Your task to perform on an android device: change timer sound Image 0: 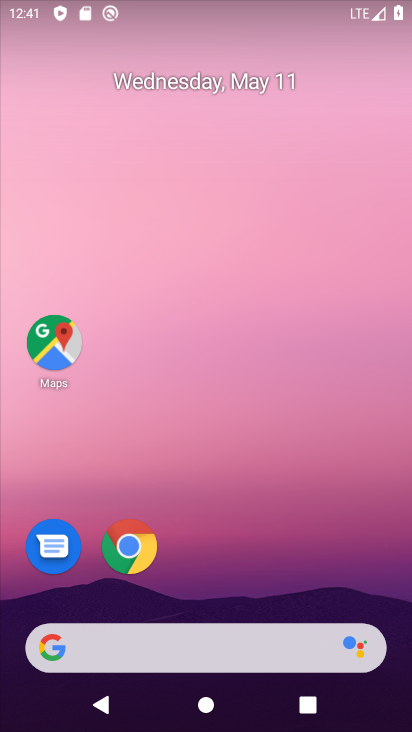
Step 0: press home button
Your task to perform on an android device: change timer sound Image 1: 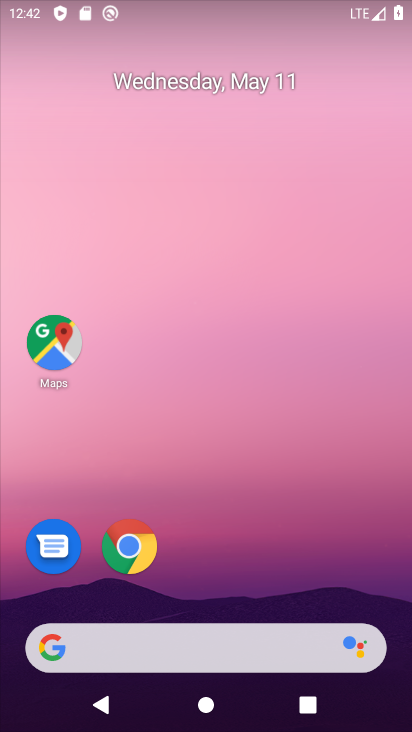
Step 1: drag from (288, 691) to (236, 312)
Your task to perform on an android device: change timer sound Image 2: 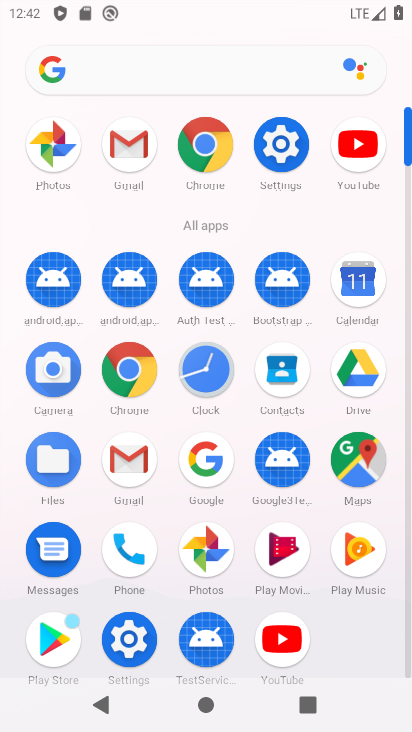
Step 2: click (213, 368)
Your task to perform on an android device: change timer sound Image 3: 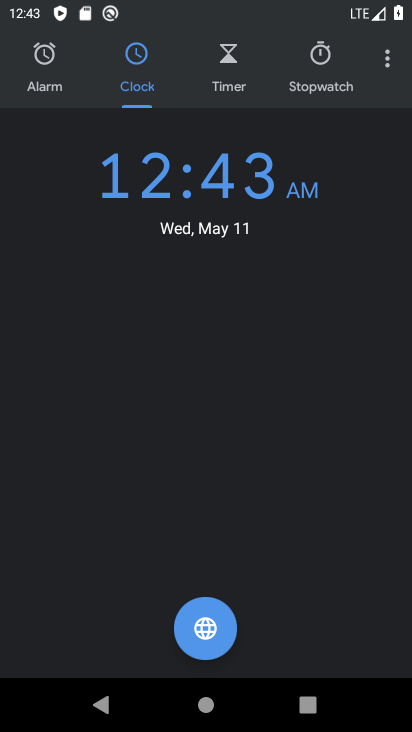
Step 3: click (387, 61)
Your task to perform on an android device: change timer sound Image 4: 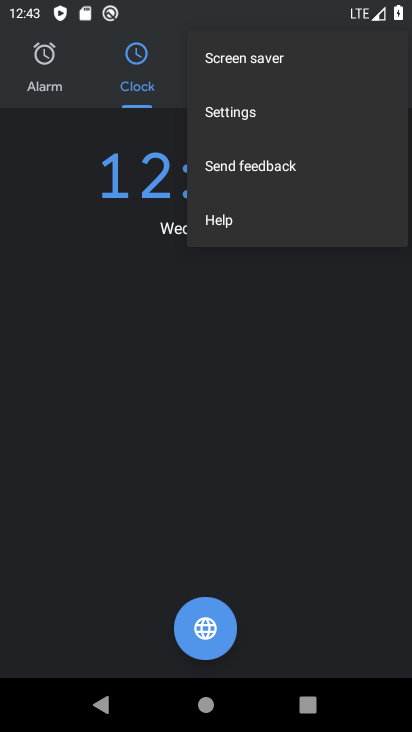
Step 4: click (261, 114)
Your task to perform on an android device: change timer sound Image 5: 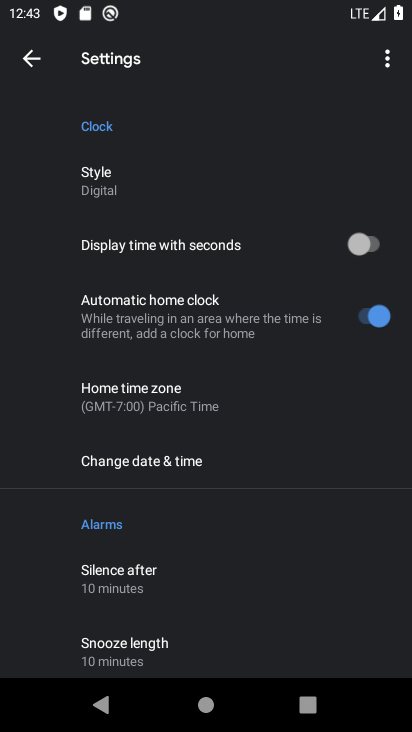
Step 5: drag from (193, 610) to (180, 261)
Your task to perform on an android device: change timer sound Image 6: 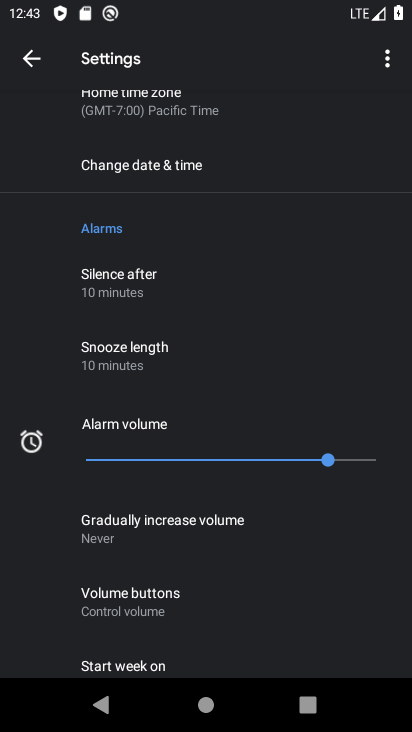
Step 6: drag from (176, 586) to (191, 393)
Your task to perform on an android device: change timer sound Image 7: 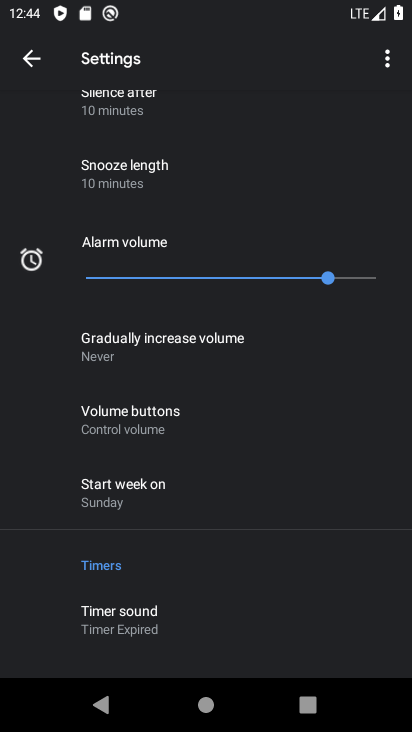
Step 7: click (138, 606)
Your task to perform on an android device: change timer sound Image 8: 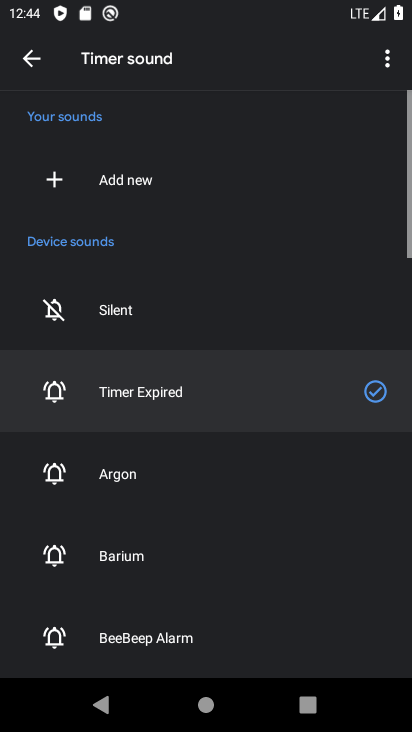
Step 8: click (146, 553)
Your task to perform on an android device: change timer sound Image 9: 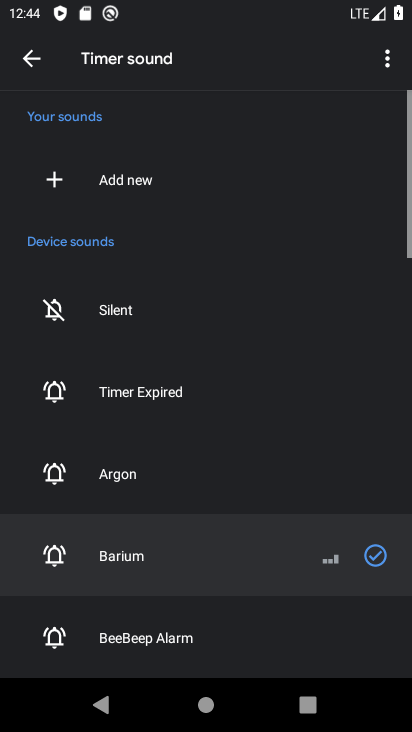
Step 9: task complete